Your task to perform on an android device: Go to sound settings Image 0: 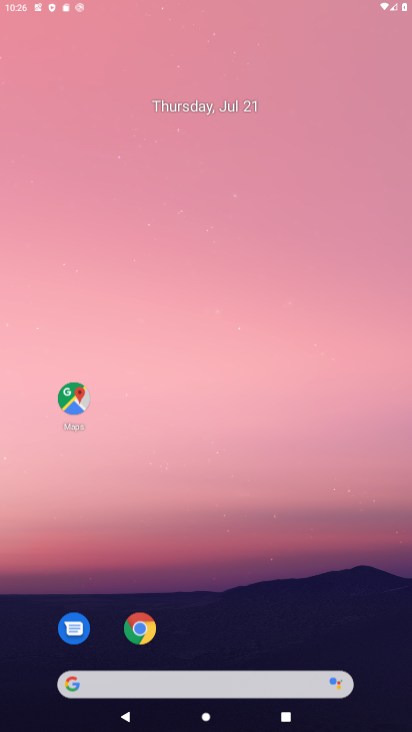
Step 0: click (203, 199)
Your task to perform on an android device: Go to sound settings Image 1: 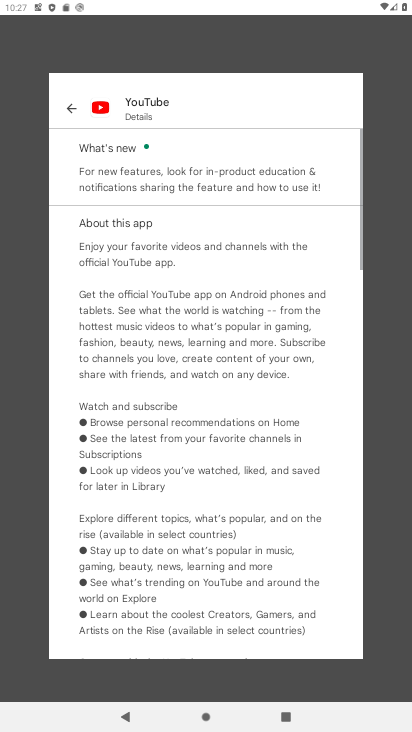
Step 1: press home button
Your task to perform on an android device: Go to sound settings Image 2: 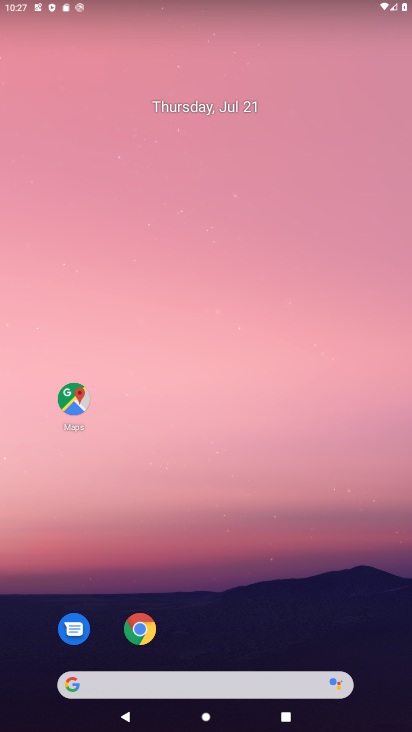
Step 2: drag from (230, 651) to (322, 49)
Your task to perform on an android device: Go to sound settings Image 3: 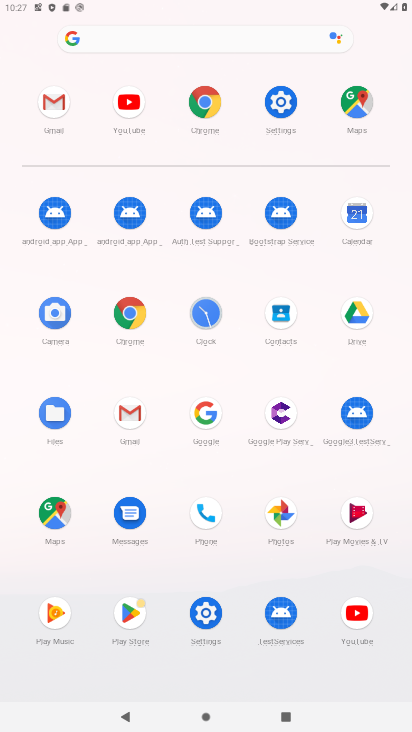
Step 3: click (280, 72)
Your task to perform on an android device: Go to sound settings Image 4: 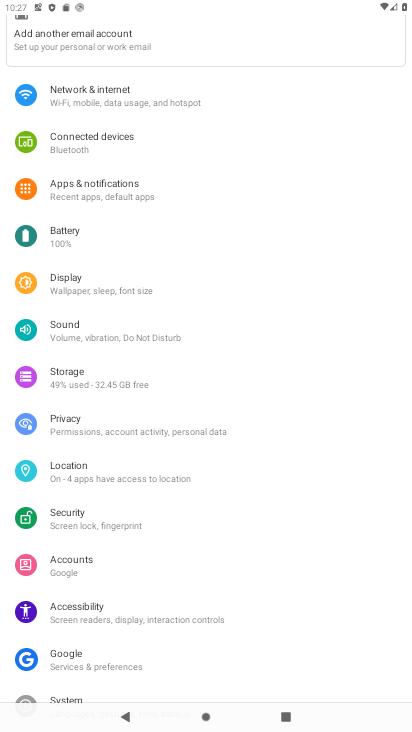
Step 4: click (67, 343)
Your task to perform on an android device: Go to sound settings Image 5: 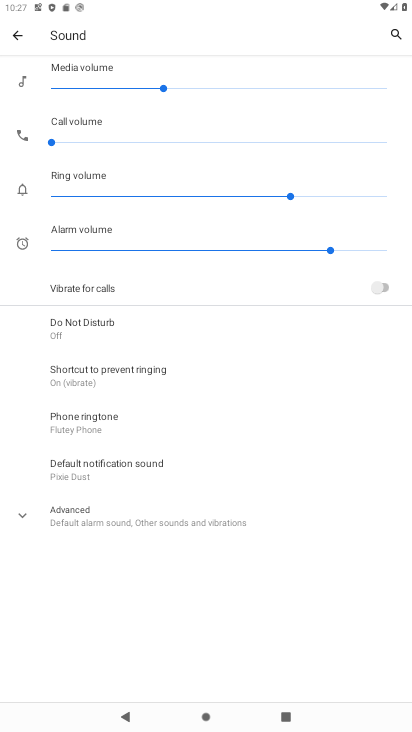
Step 5: task complete